Your task to perform on an android device: delete location history Image 0: 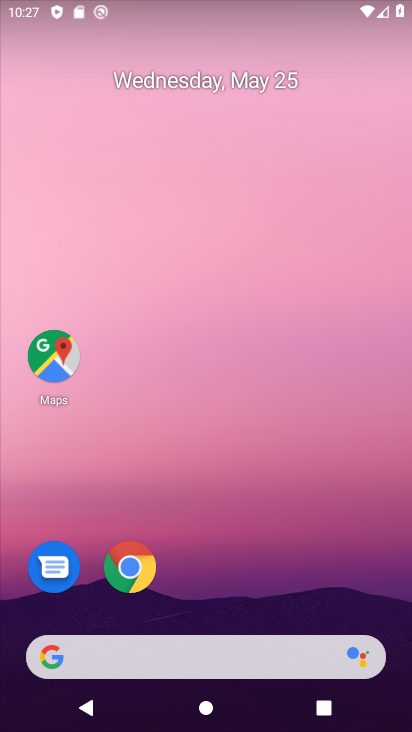
Step 0: drag from (203, 618) to (195, 36)
Your task to perform on an android device: delete location history Image 1: 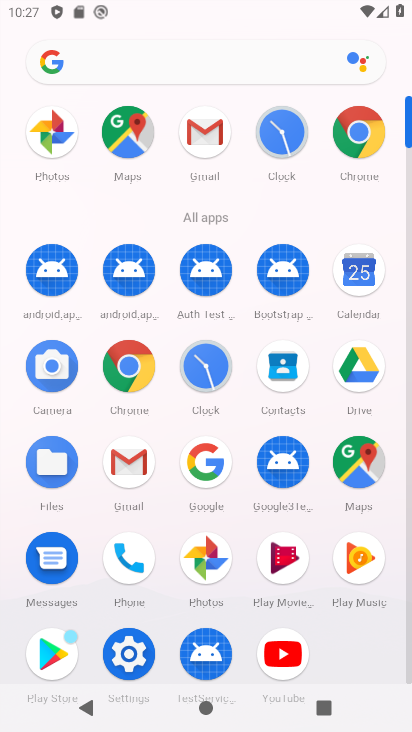
Step 1: click (345, 453)
Your task to perform on an android device: delete location history Image 2: 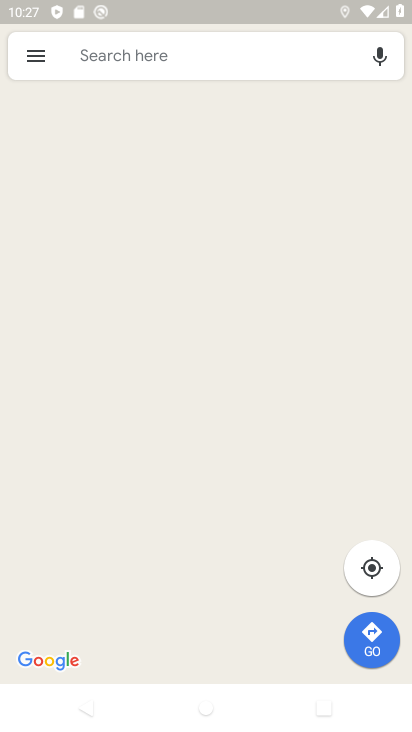
Step 2: click (24, 65)
Your task to perform on an android device: delete location history Image 3: 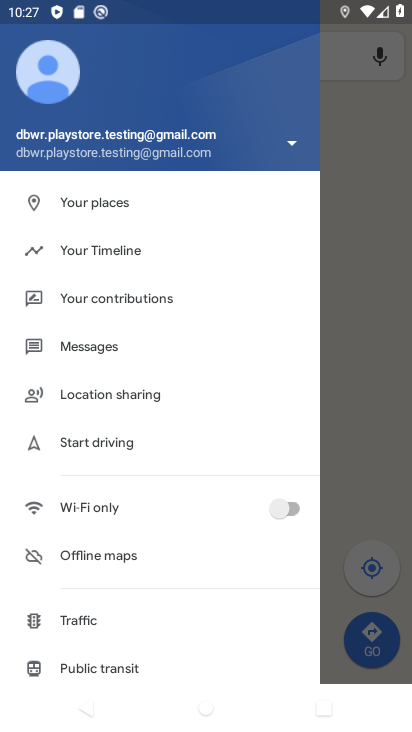
Step 3: click (94, 262)
Your task to perform on an android device: delete location history Image 4: 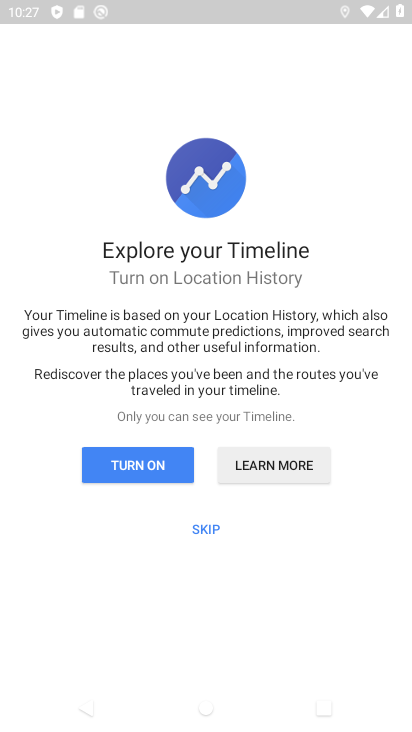
Step 4: click (200, 523)
Your task to perform on an android device: delete location history Image 5: 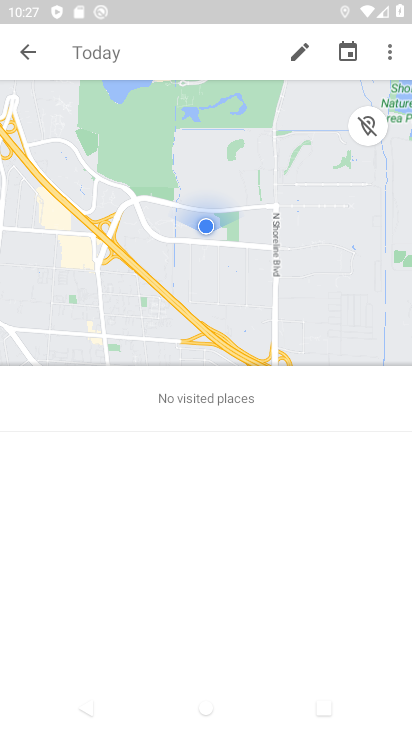
Step 5: click (396, 52)
Your task to perform on an android device: delete location history Image 6: 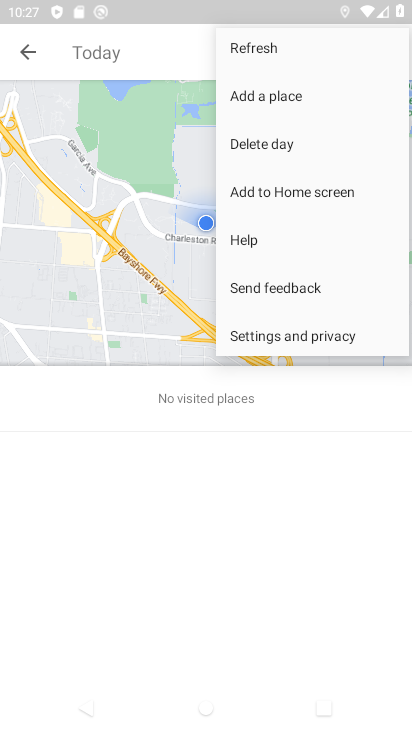
Step 6: click (385, 60)
Your task to perform on an android device: delete location history Image 7: 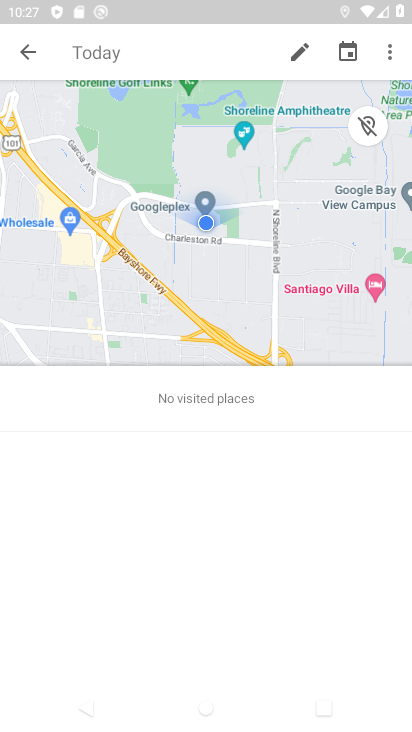
Step 7: click (395, 53)
Your task to perform on an android device: delete location history Image 8: 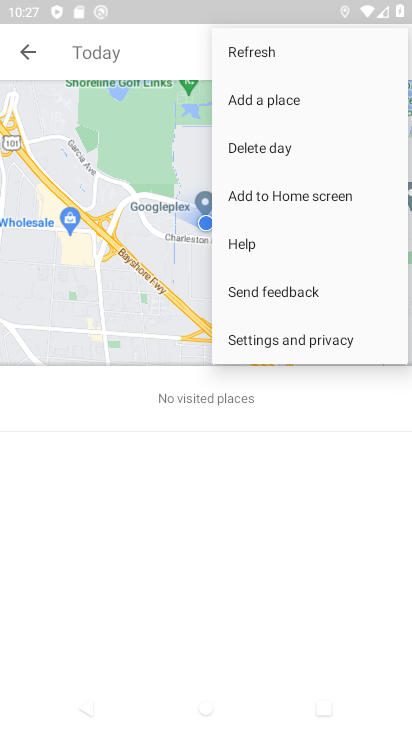
Step 8: click (261, 334)
Your task to perform on an android device: delete location history Image 9: 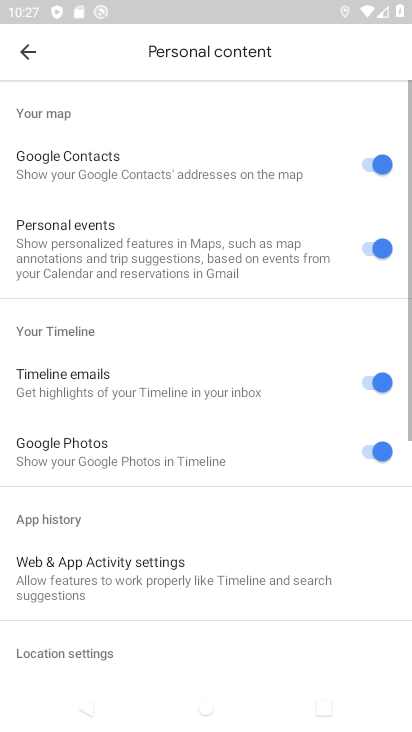
Step 9: drag from (203, 513) to (169, 224)
Your task to perform on an android device: delete location history Image 10: 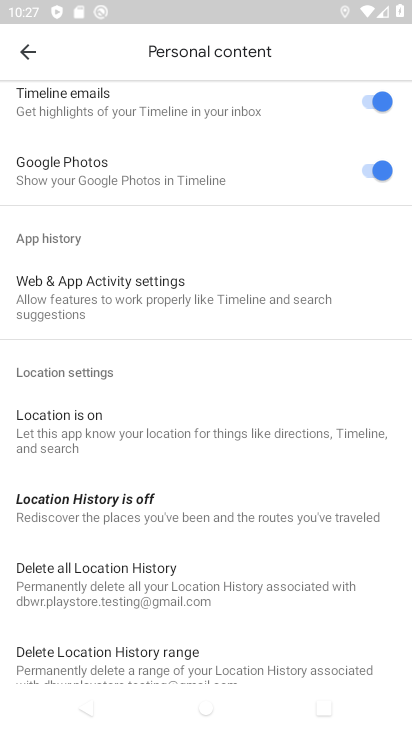
Step 10: click (96, 565)
Your task to perform on an android device: delete location history Image 11: 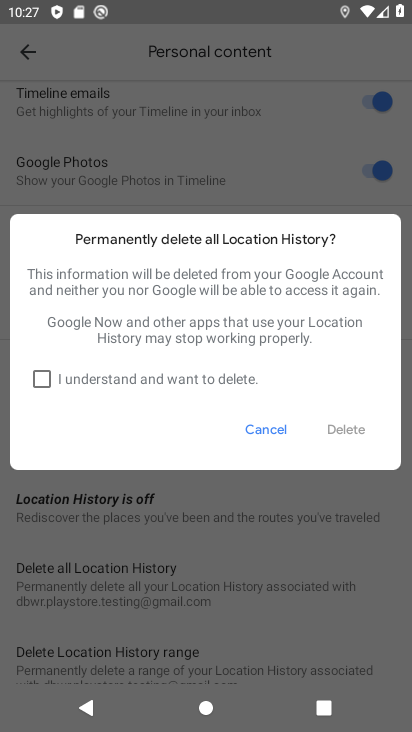
Step 11: click (38, 373)
Your task to perform on an android device: delete location history Image 12: 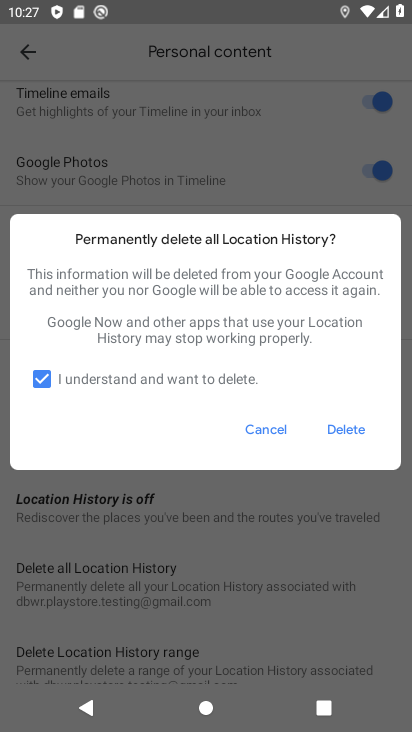
Step 12: click (343, 428)
Your task to perform on an android device: delete location history Image 13: 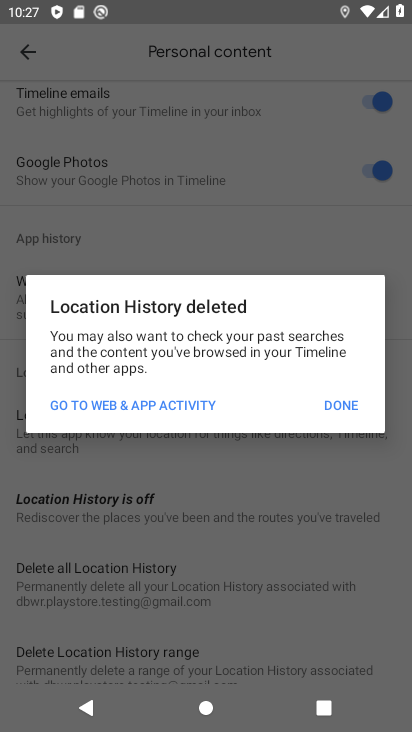
Step 13: click (345, 393)
Your task to perform on an android device: delete location history Image 14: 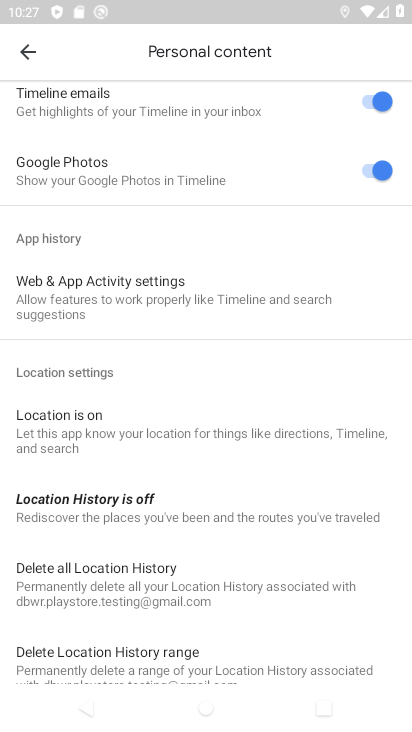
Step 14: task complete